Your task to perform on an android device: Open location settings Image 0: 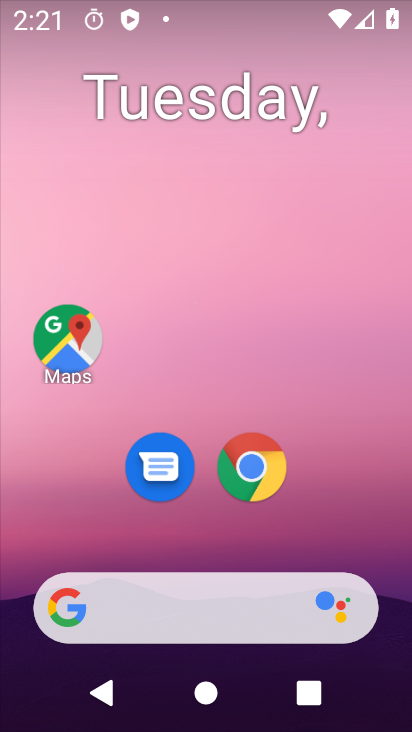
Step 0: drag from (376, 538) to (369, 122)
Your task to perform on an android device: Open location settings Image 1: 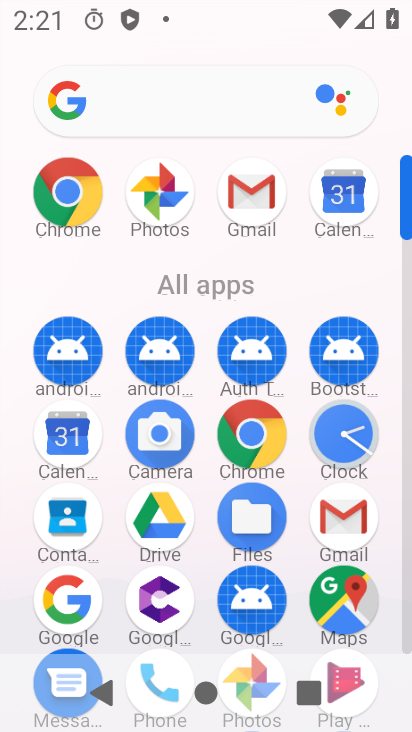
Step 1: drag from (385, 555) to (391, 240)
Your task to perform on an android device: Open location settings Image 2: 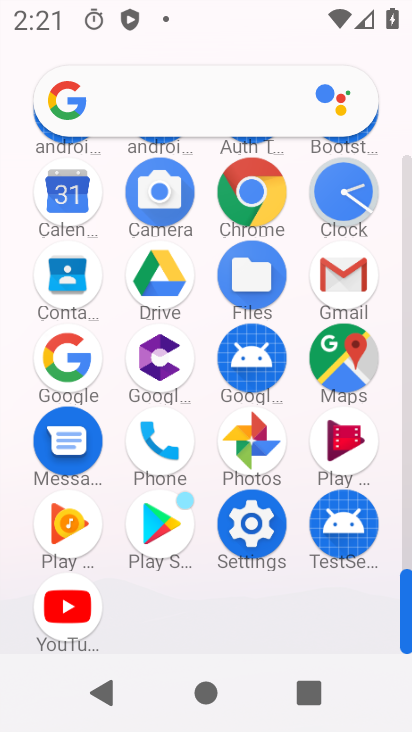
Step 2: click (246, 526)
Your task to perform on an android device: Open location settings Image 3: 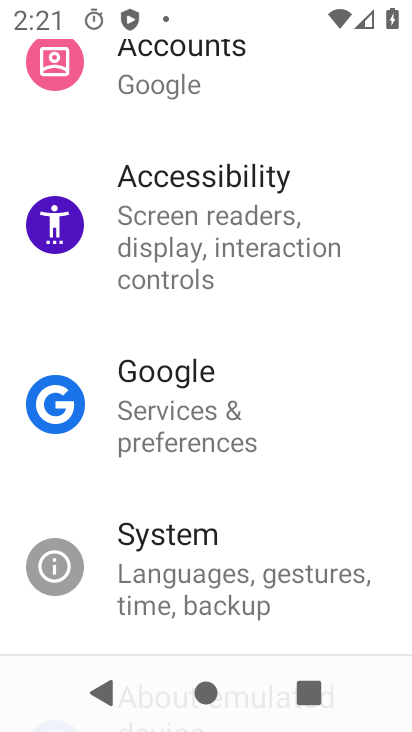
Step 3: drag from (371, 174) to (376, 374)
Your task to perform on an android device: Open location settings Image 4: 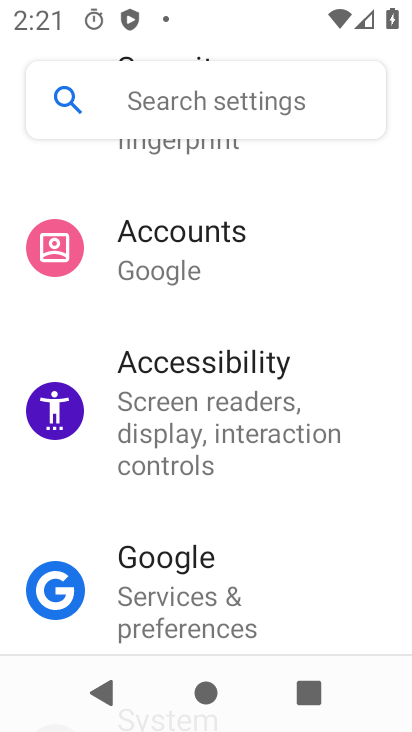
Step 4: drag from (350, 217) to (357, 401)
Your task to perform on an android device: Open location settings Image 5: 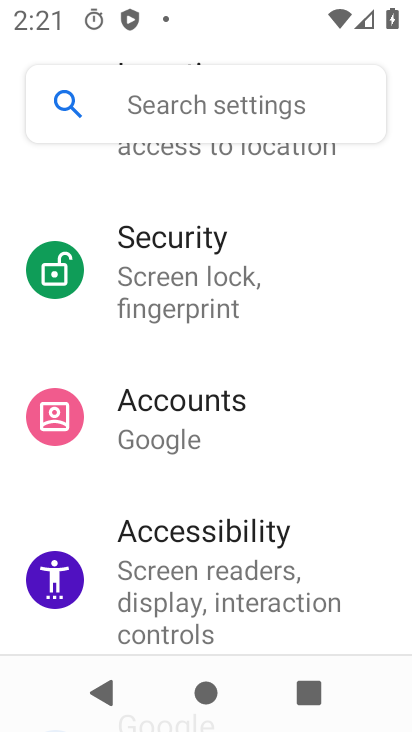
Step 5: drag from (354, 202) to (347, 391)
Your task to perform on an android device: Open location settings Image 6: 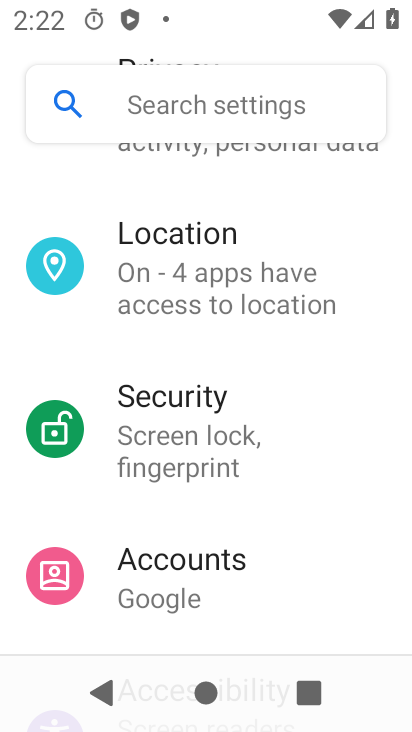
Step 6: drag from (355, 193) to (360, 444)
Your task to perform on an android device: Open location settings Image 7: 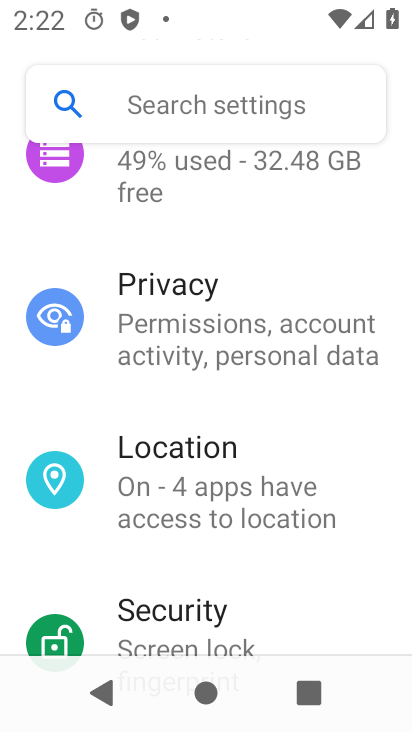
Step 7: click (224, 478)
Your task to perform on an android device: Open location settings Image 8: 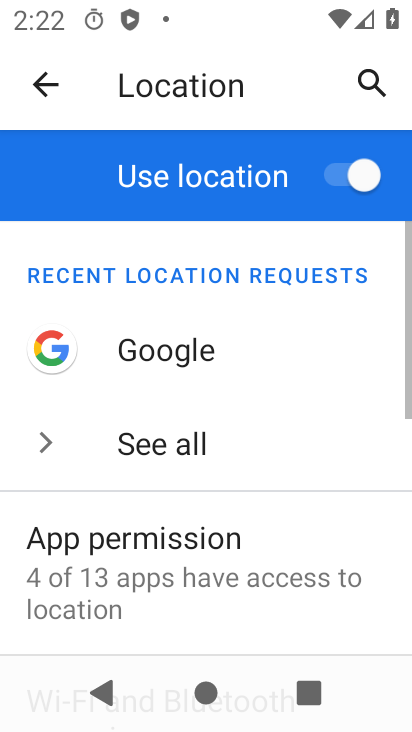
Step 8: task complete